Your task to perform on an android device: Open Maps and search for coffee Image 0: 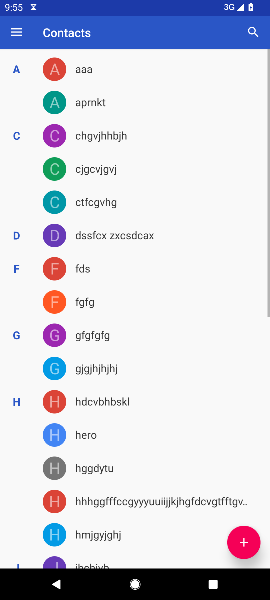
Step 0: press home button
Your task to perform on an android device: Open Maps and search for coffee Image 1: 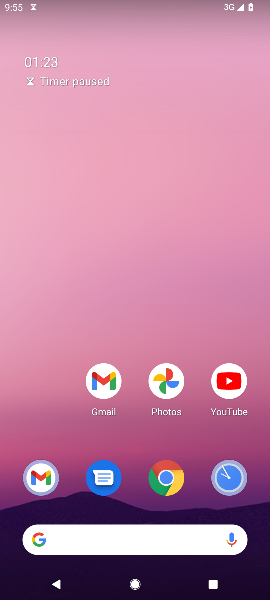
Step 1: drag from (131, 545) to (147, 123)
Your task to perform on an android device: Open Maps and search for coffee Image 2: 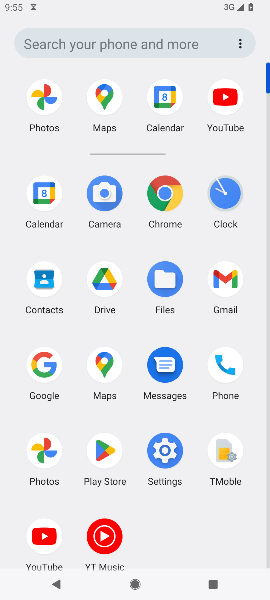
Step 2: click (101, 364)
Your task to perform on an android device: Open Maps and search for coffee Image 3: 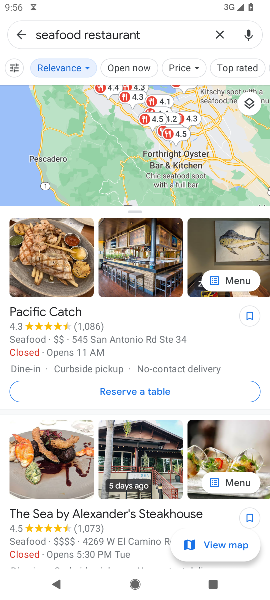
Step 3: click (219, 34)
Your task to perform on an android device: Open Maps and search for coffee Image 4: 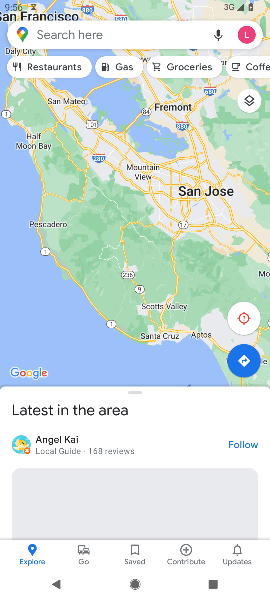
Step 4: click (116, 34)
Your task to perform on an android device: Open Maps and search for coffee Image 5: 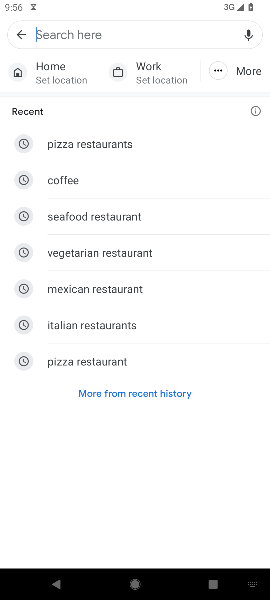
Step 5: click (64, 182)
Your task to perform on an android device: Open Maps and search for coffee Image 6: 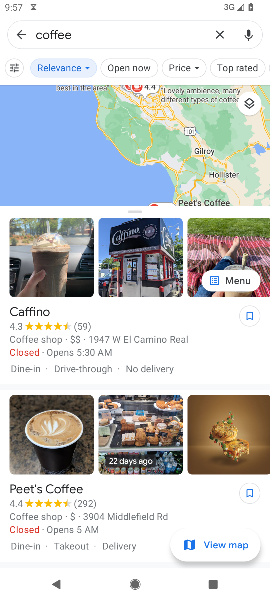
Step 6: task complete